Your task to perform on an android device: What's on my calendar tomorrow? Image 0: 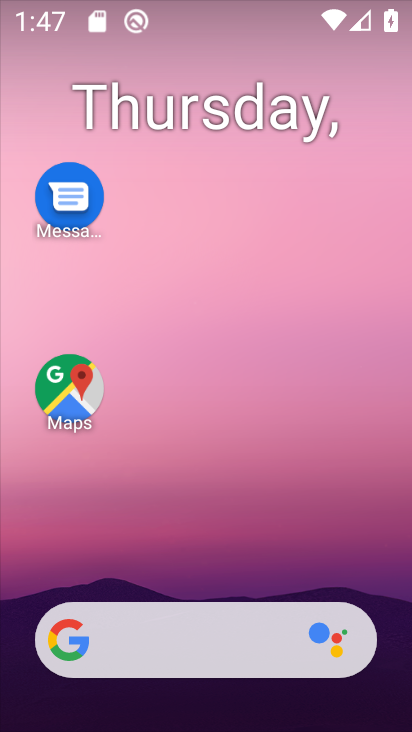
Step 0: drag from (170, 585) to (290, 168)
Your task to perform on an android device: What's on my calendar tomorrow? Image 1: 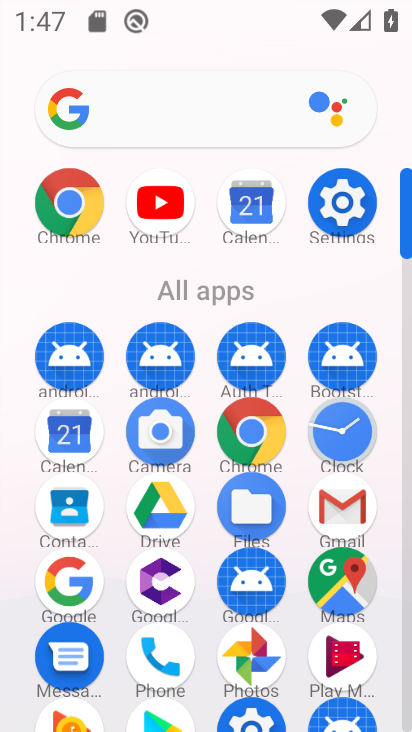
Step 1: click (75, 445)
Your task to perform on an android device: What's on my calendar tomorrow? Image 2: 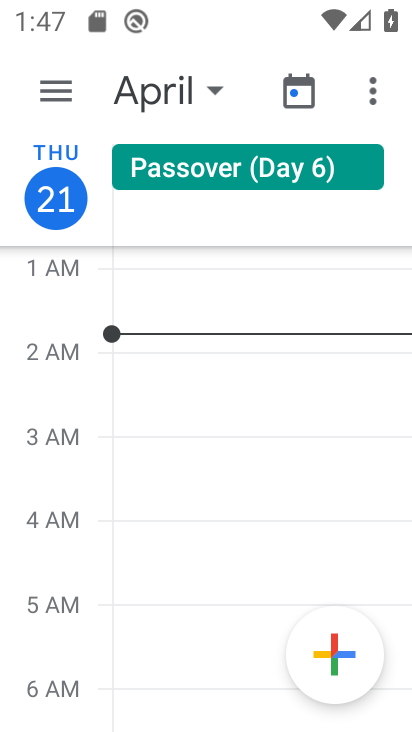
Step 2: click (172, 91)
Your task to perform on an android device: What's on my calendar tomorrow? Image 3: 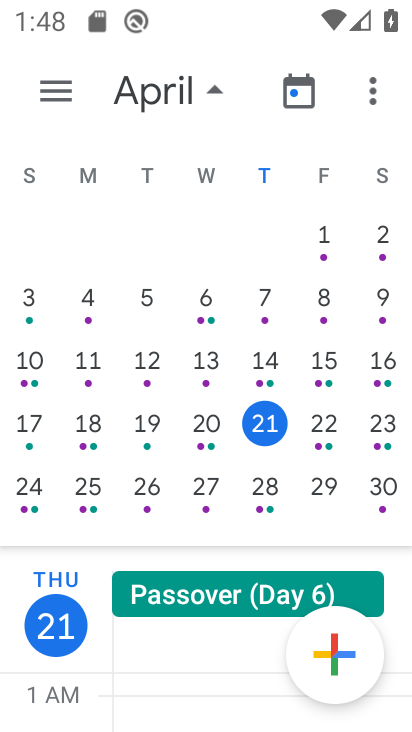
Step 3: click (322, 428)
Your task to perform on an android device: What's on my calendar tomorrow? Image 4: 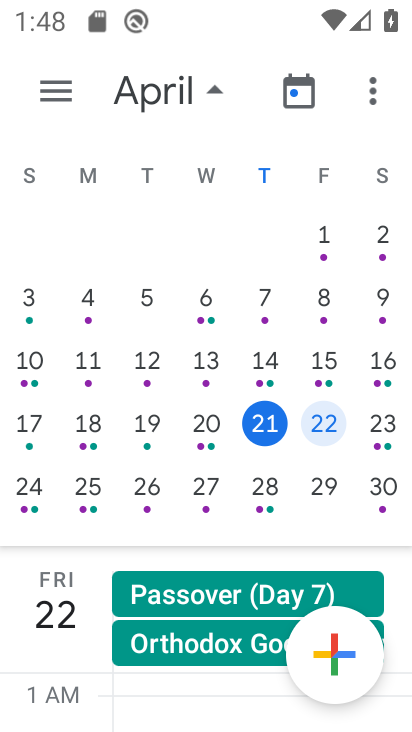
Step 4: task complete